Your task to perform on an android device: Turn on the flashlight Image 0: 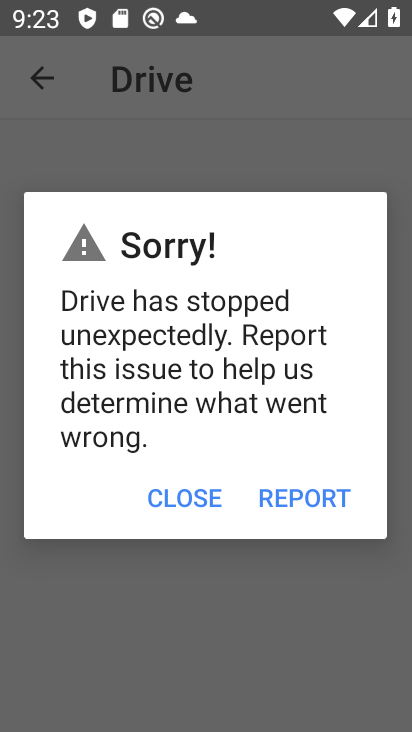
Step 0: press home button
Your task to perform on an android device: Turn on the flashlight Image 1: 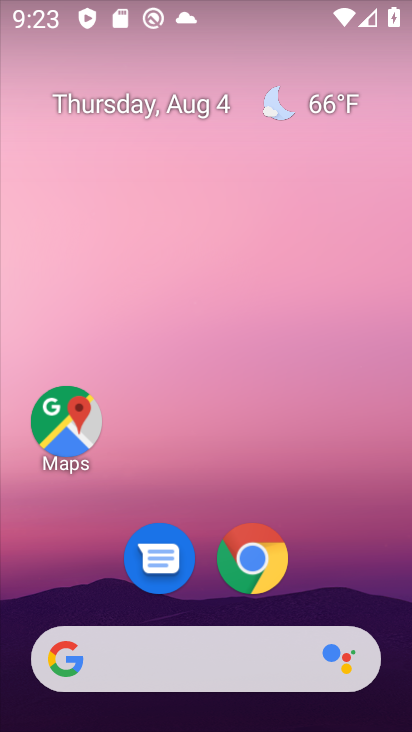
Step 1: drag from (325, 587) to (297, 146)
Your task to perform on an android device: Turn on the flashlight Image 2: 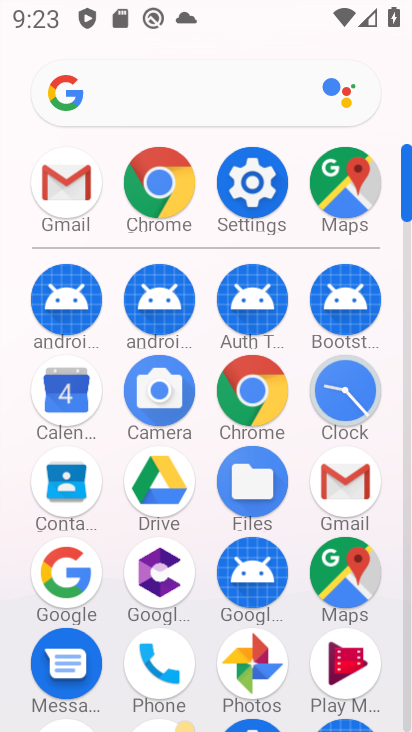
Step 2: drag from (203, 614) to (230, 325)
Your task to perform on an android device: Turn on the flashlight Image 3: 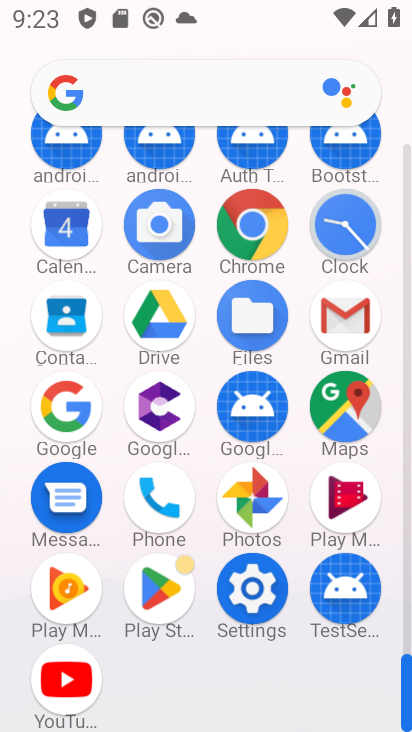
Step 3: click (261, 596)
Your task to perform on an android device: Turn on the flashlight Image 4: 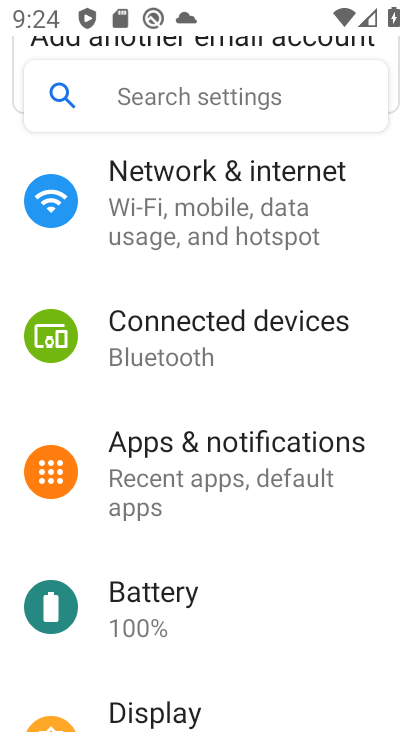
Step 4: drag from (343, 232) to (249, 481)
Your task to perform on an android device: Turn on the flashlight Image 5: 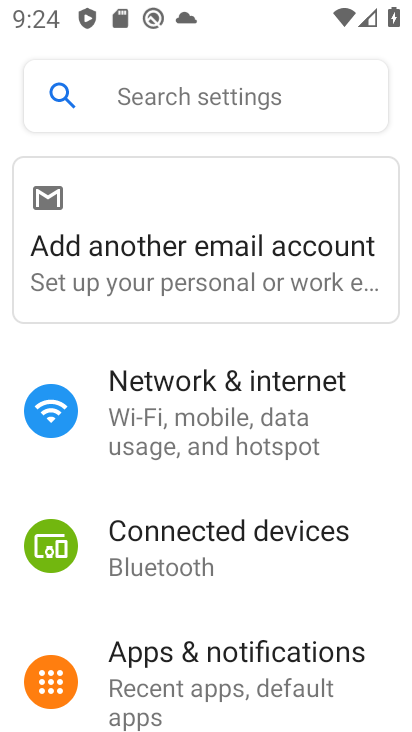
Step 5: drag from (385, 567) to (379, 157)
Your task to perform on an android device: Turn on the flashlight Image 6: 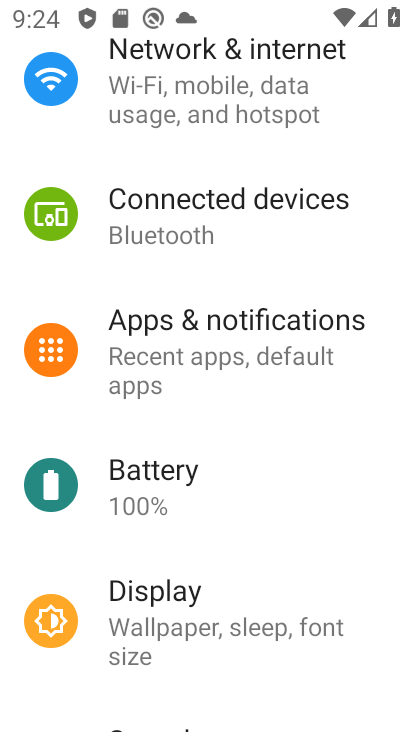
Step 6: click (202, 603)
Your task to perform on an android device: Turn on the flashlight Image 7: 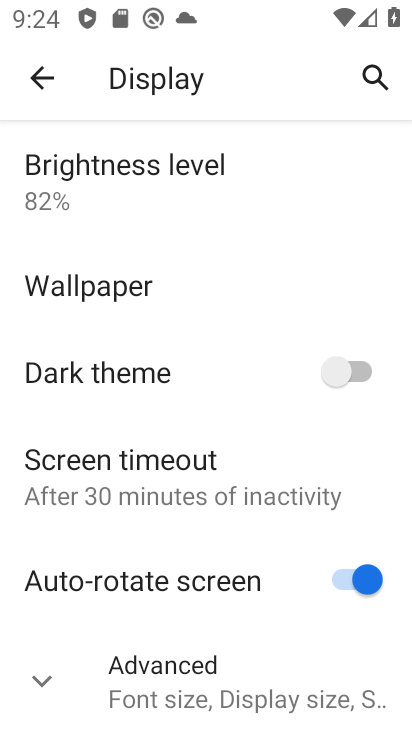
Step 7: click (108, 481)
Your task to perform on an android device: Turn on the flashlight Image 8: 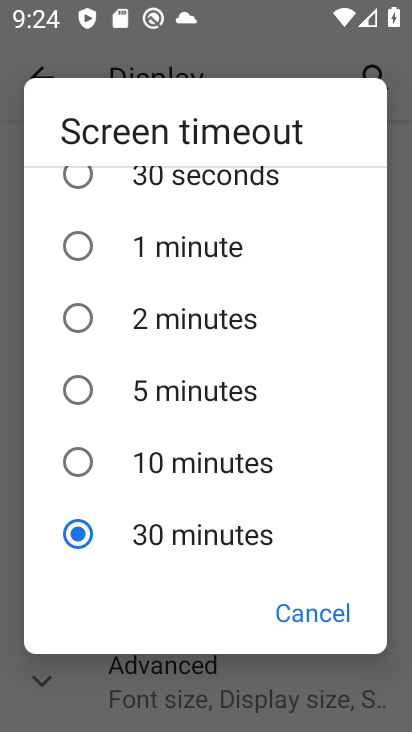
Step 8: task complete